Your task to perform on an android device: Go to wifi settings Image 0: 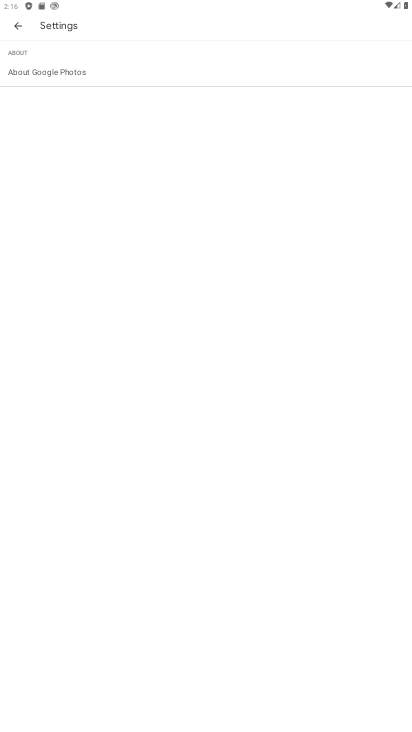
Step 0: press home button
Your task to perform on an android device: Go to wifi settings Image 1: 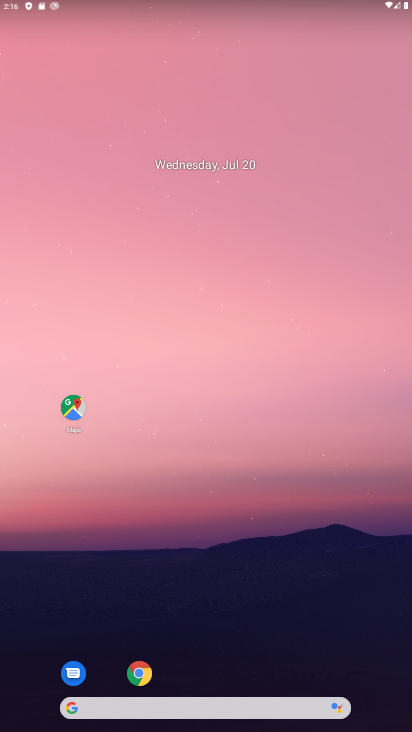
Step 1: drag from (242, 685) to (149, 63)
Your task to perform on an android device: Go to wifi settings Image 2: 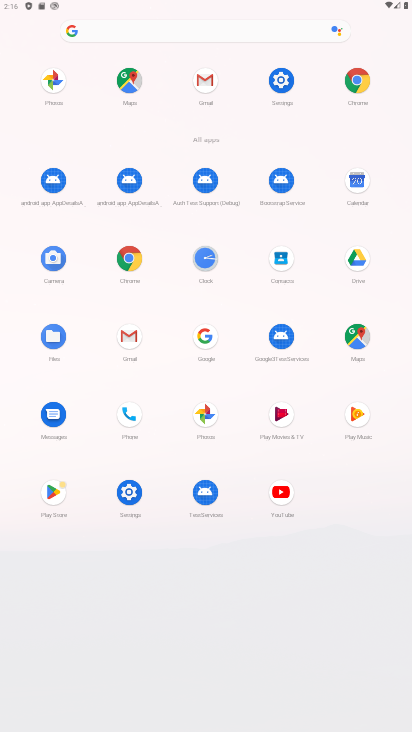
Step 2: click (126, 490)
Your task to perform on an android device: Go to wifi settings Image 3: 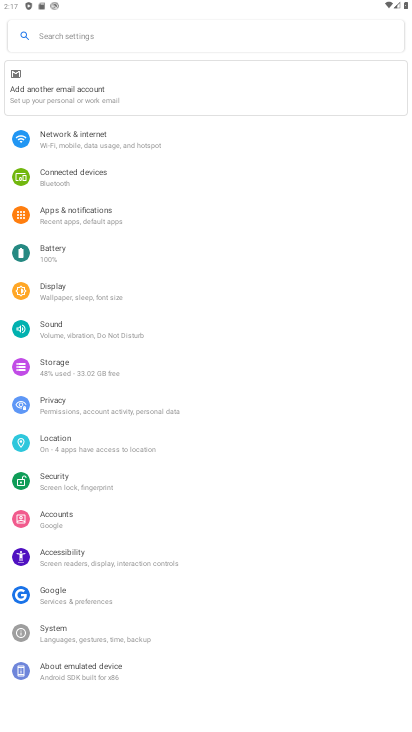
Step 3: click (60, 136)
Your task to perform on an android device: Go to wifi settings Image 4: 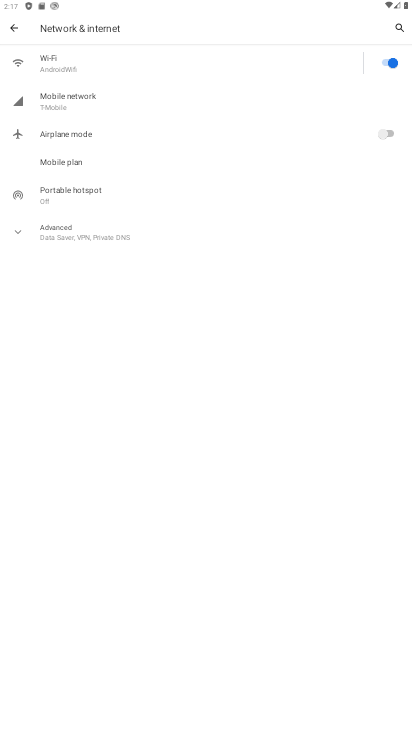
Step 4: click (94, 57)
Your task to perform on an android device: Go to wifi settings Image 5: 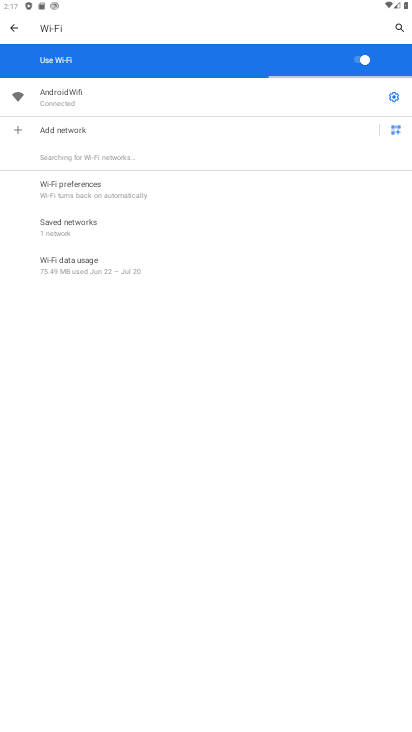
Step 5: task complete